Your task to perform on an android device: Check the news Image 0: 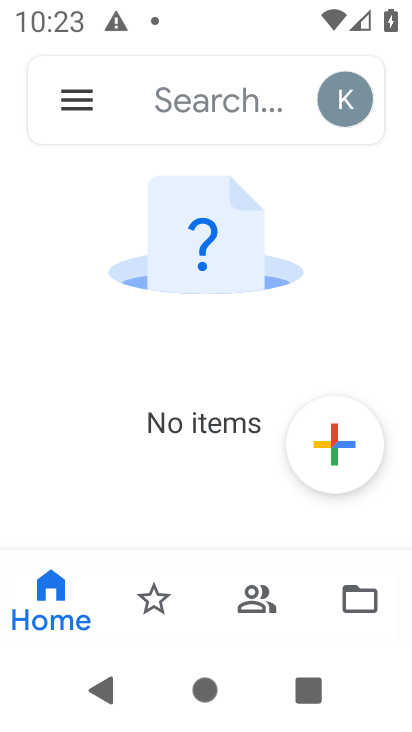
Step 0: press home button
Your task to perform on an android device: Check the news Image 1: 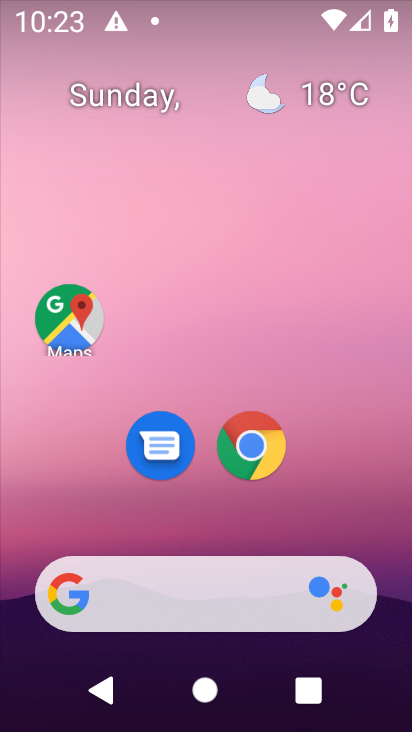
Step 1: click (245, 453)
Your task to perform on an android device: Check the news Image 2: 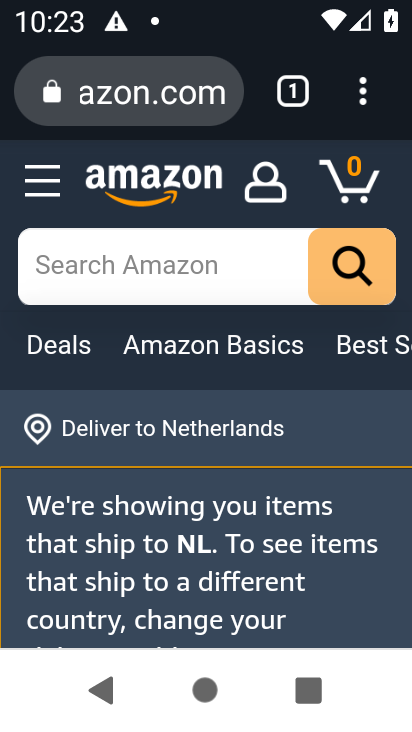
Step 2: click (196, 95)
Your task to perform on an android device: Check the news Image 3: 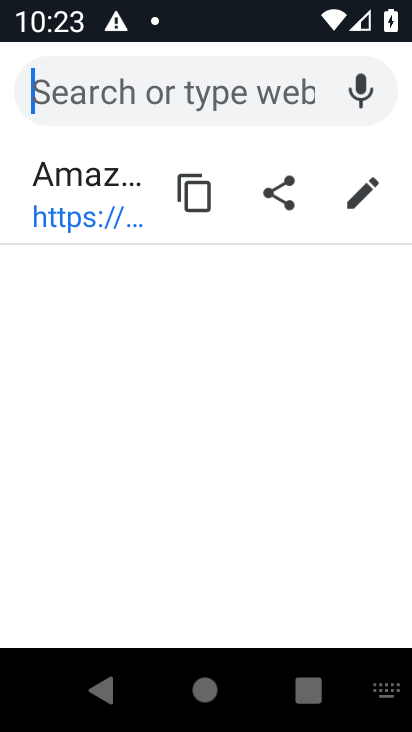
Step 3: type "news"
Your task to perform on an android device: Check the news Image 4: 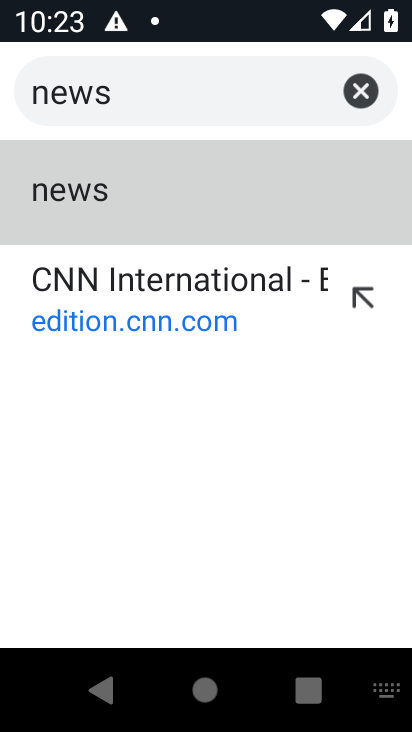
Step 4: click (201, 209)
Your task to perform on an android device: Check the news Image 5: 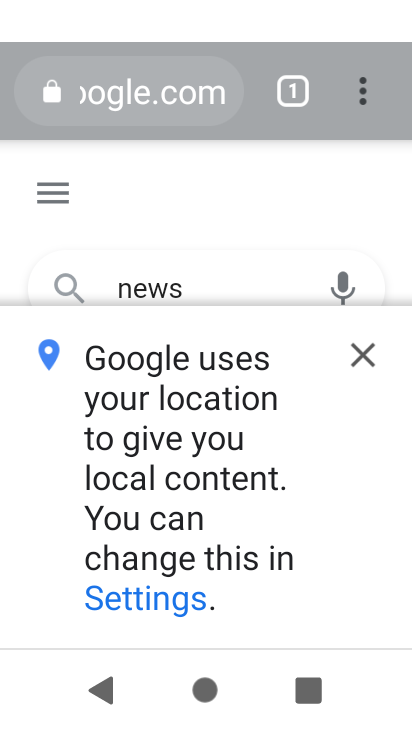
Step 5: click (362, 355)
Your task to perform on an android device: Check the news Image 6: 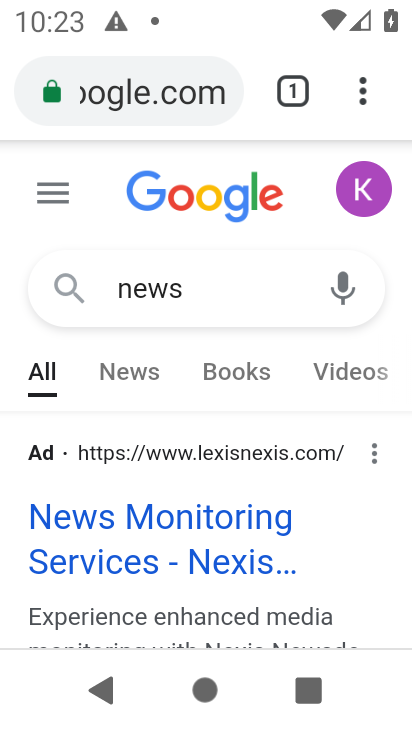
Step 6: click (120, 376)
Your task to perform on an android device: Check the news Image 7: 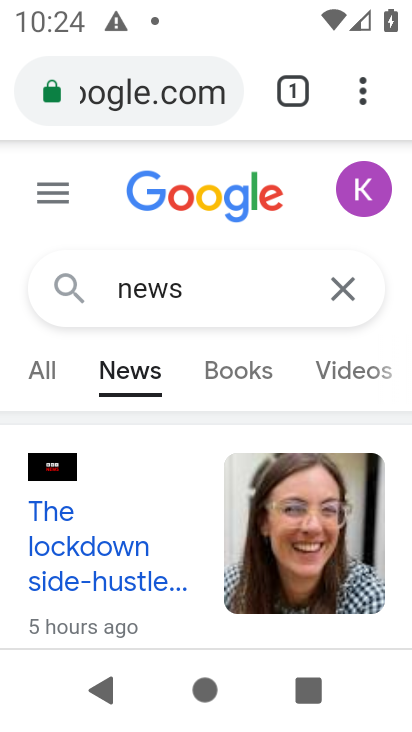
Step 7: task complete